Your task to perform on an android device: When is my next appointment? Image 0: 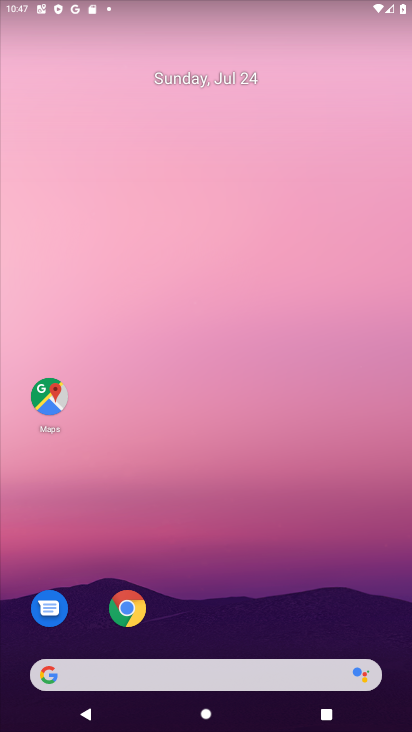
Step 0: press home button
Your task to perform on an android device: When is my next appointment? Image 1: 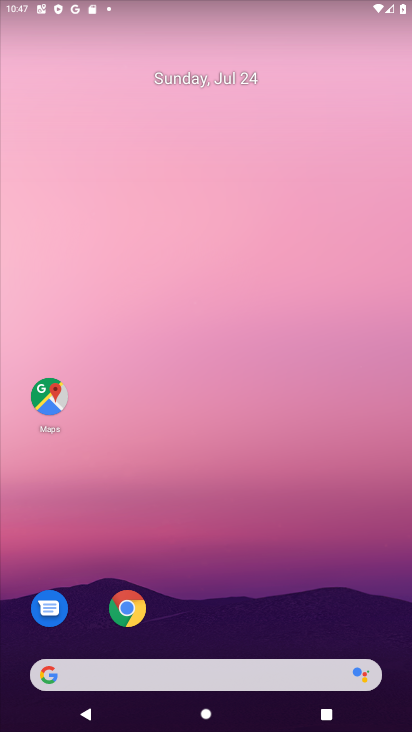
Step 1: drag from (211, 645) to (216, 119)
Your task to perform on an android device: When is my next appointment? Image 2: 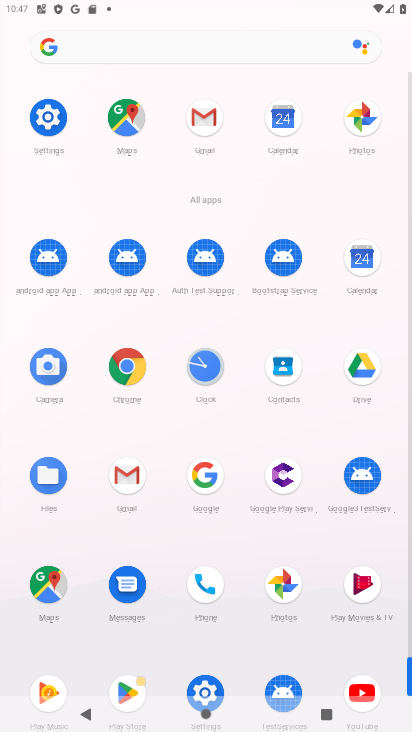
Step 2: click (358, 260)
Your task to perform on an android device: When is my next appointment? Image 3: 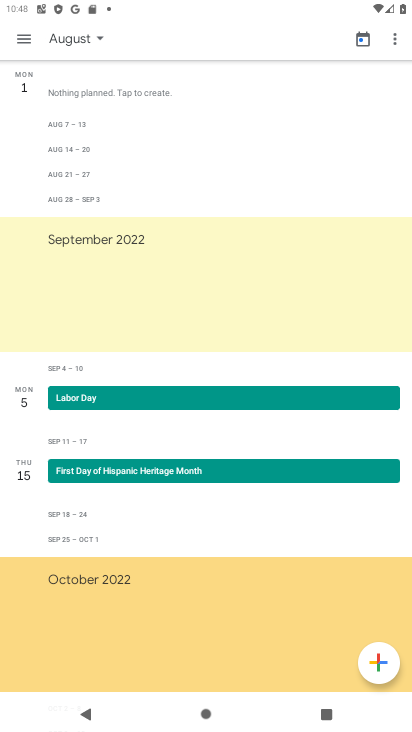
Step 3: task complete